Your task to perform on an android device: Go to sound settings Image 0: 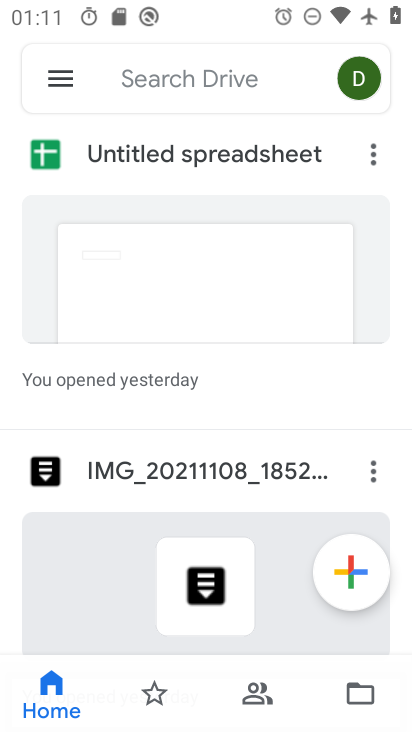
Step 0: press home button
Your task to perform on an android device: Go to sound settings Image 1: 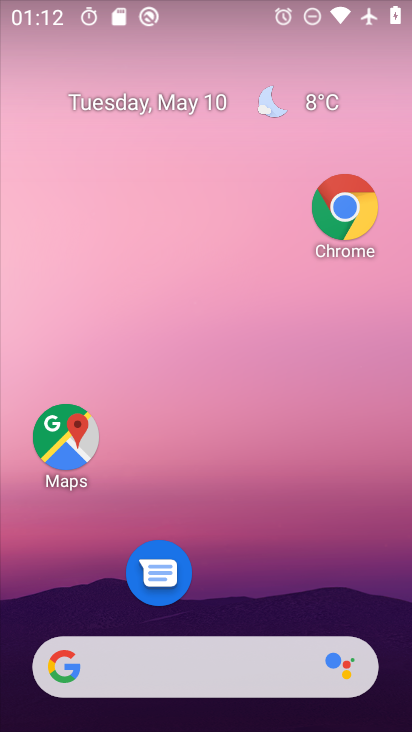
Step 1: drag from (309, 574) to (288, 144)
Your task to perform on an android device: Go to sound settings Image 2: 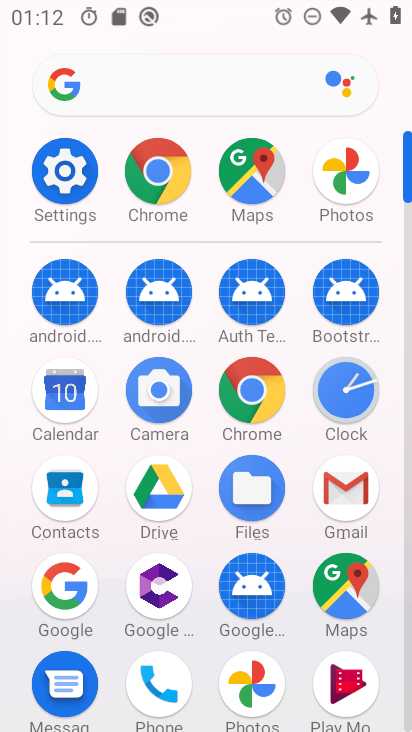
Step 2: click (45, 159)
Your task to perform on an android device: Go to sound settings Image 3: 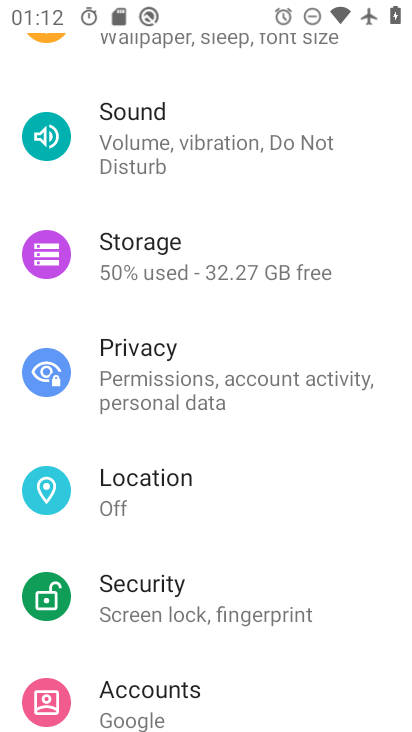
Step 3: drag from (257, 570) to (257, 626)
Your task to perform on an android device: Go to sound settings Image 4: 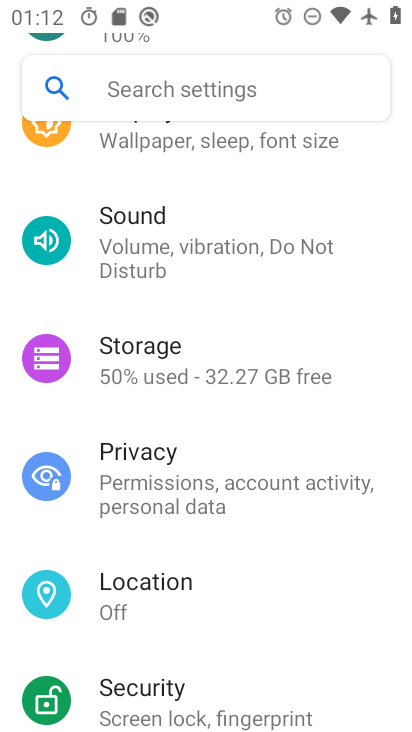
Step 4: click (212, 244)
Your task to perform on an android device: Go to sound settings Image 5: 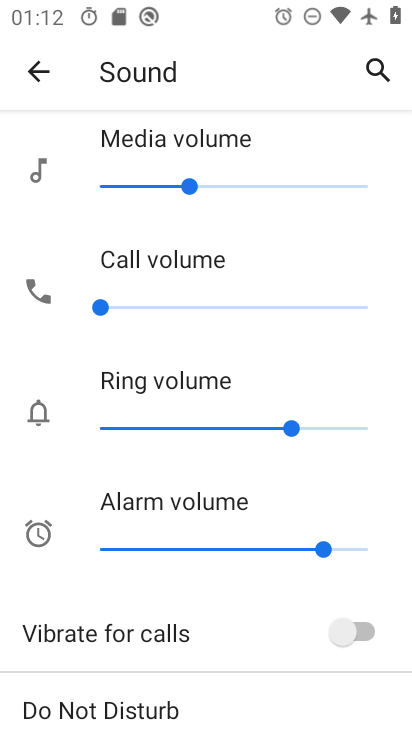
Step 5: task complete